Your task to perform on an android device: What's the news in Malaysia? Image 0: 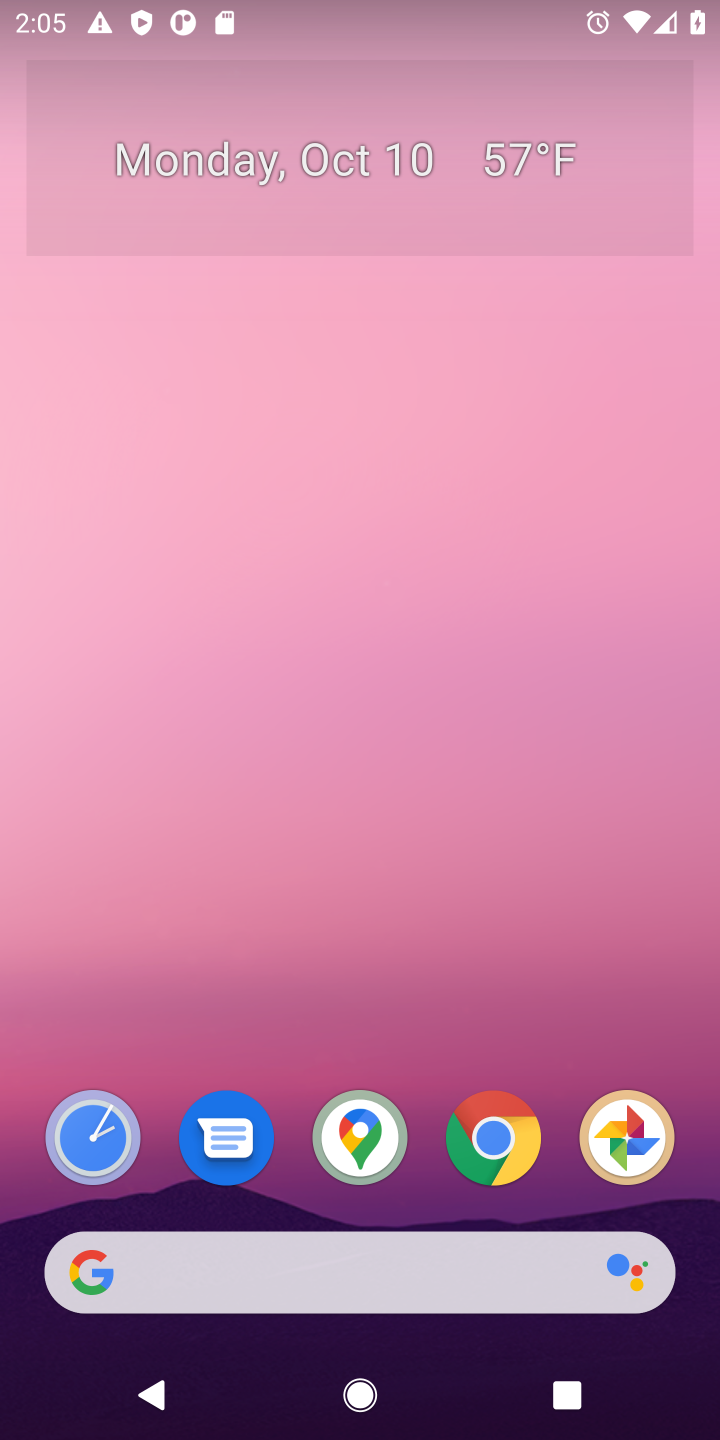
Step 0: click (355, 1255)
Your task to perform on an android device: What's the news in Malaysia? Image 1: 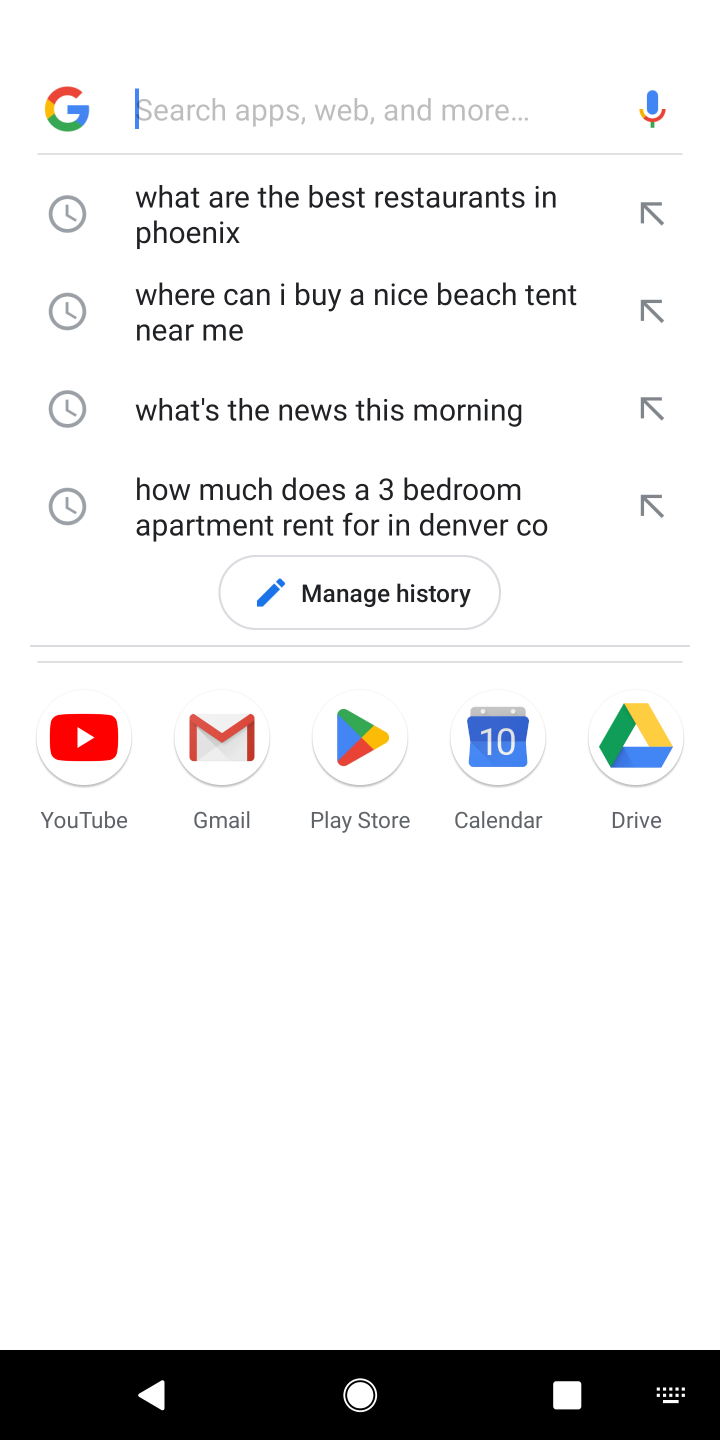
Step 1: type "news in malaysia?"
Your task to perform on an android device: What's the news in Malaysia? Image 2: 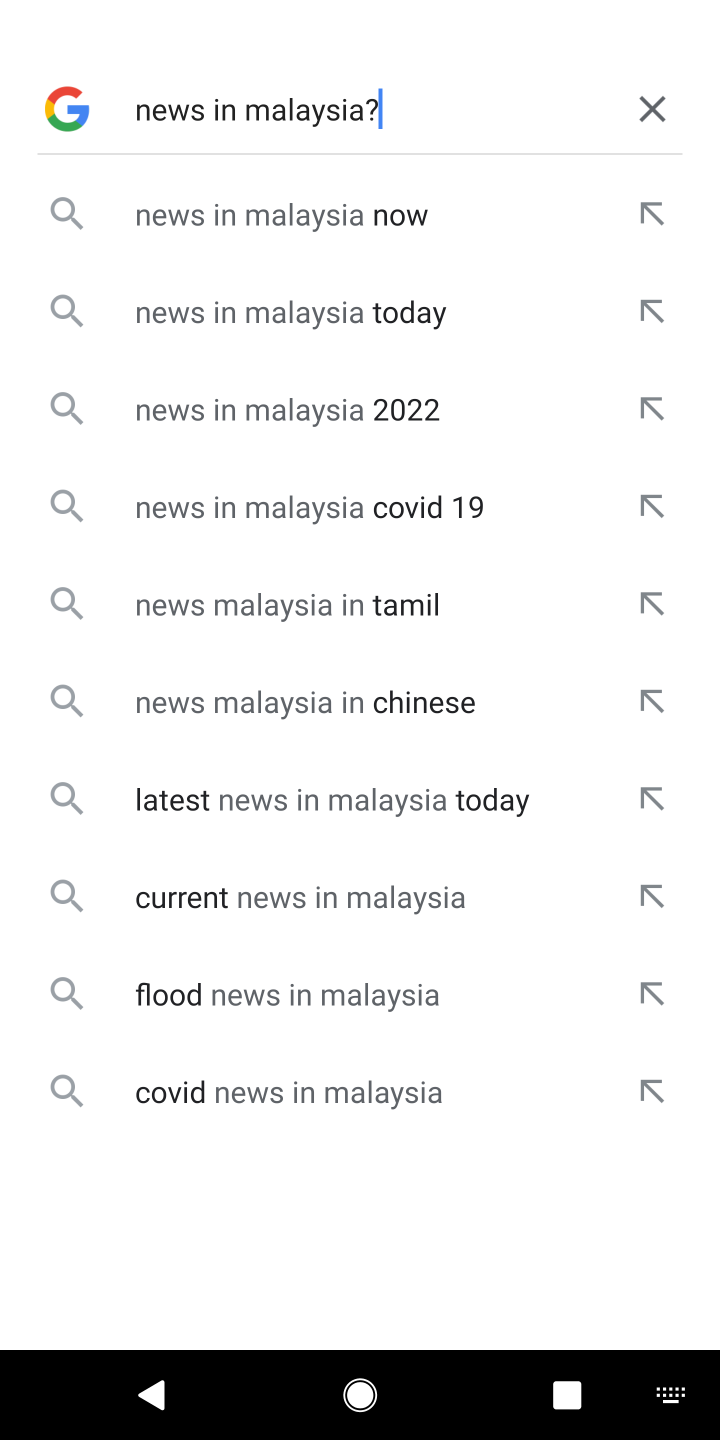
Step 2: click (268, 219)
Your task to perform on an android device: What's the news in Malaysia? Image 3: 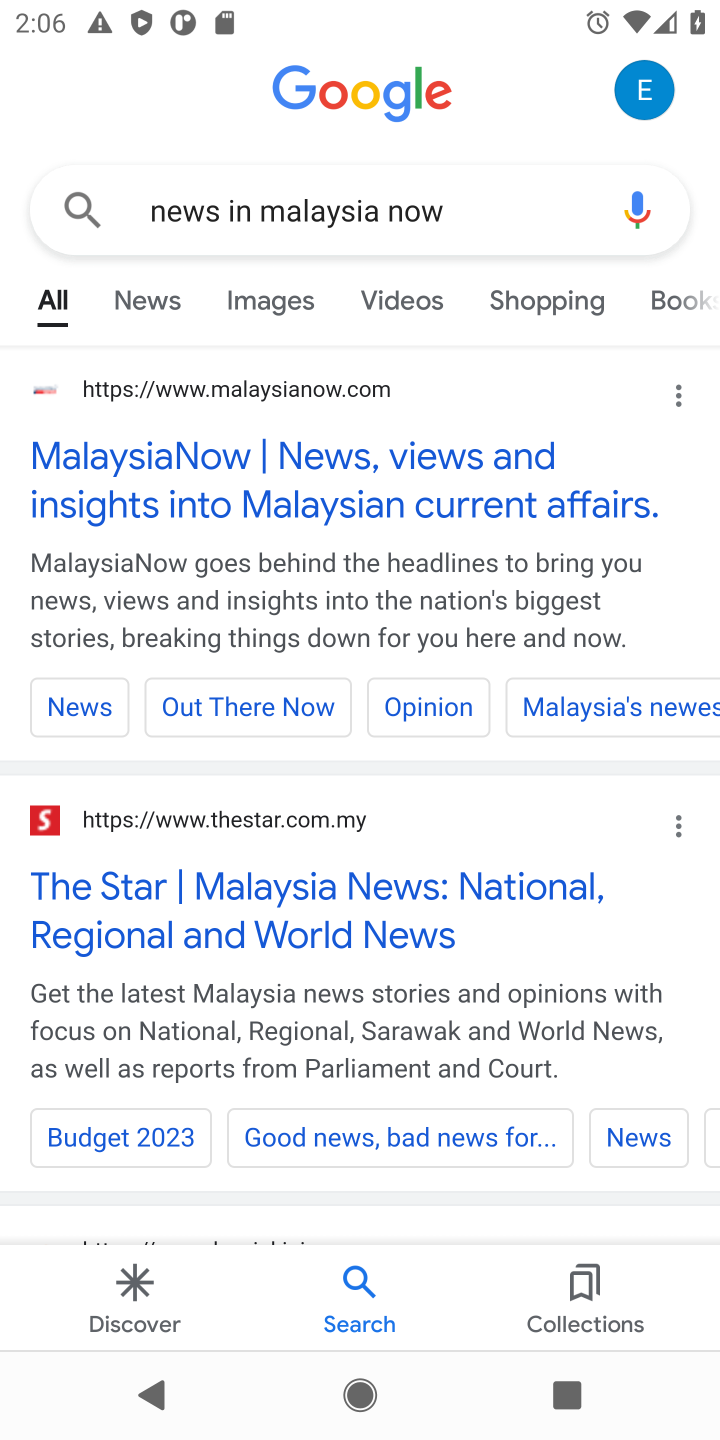
Step 3: click (210, 487)
Your task to perform on an android device: What's the news in Malaysia? Image 4: 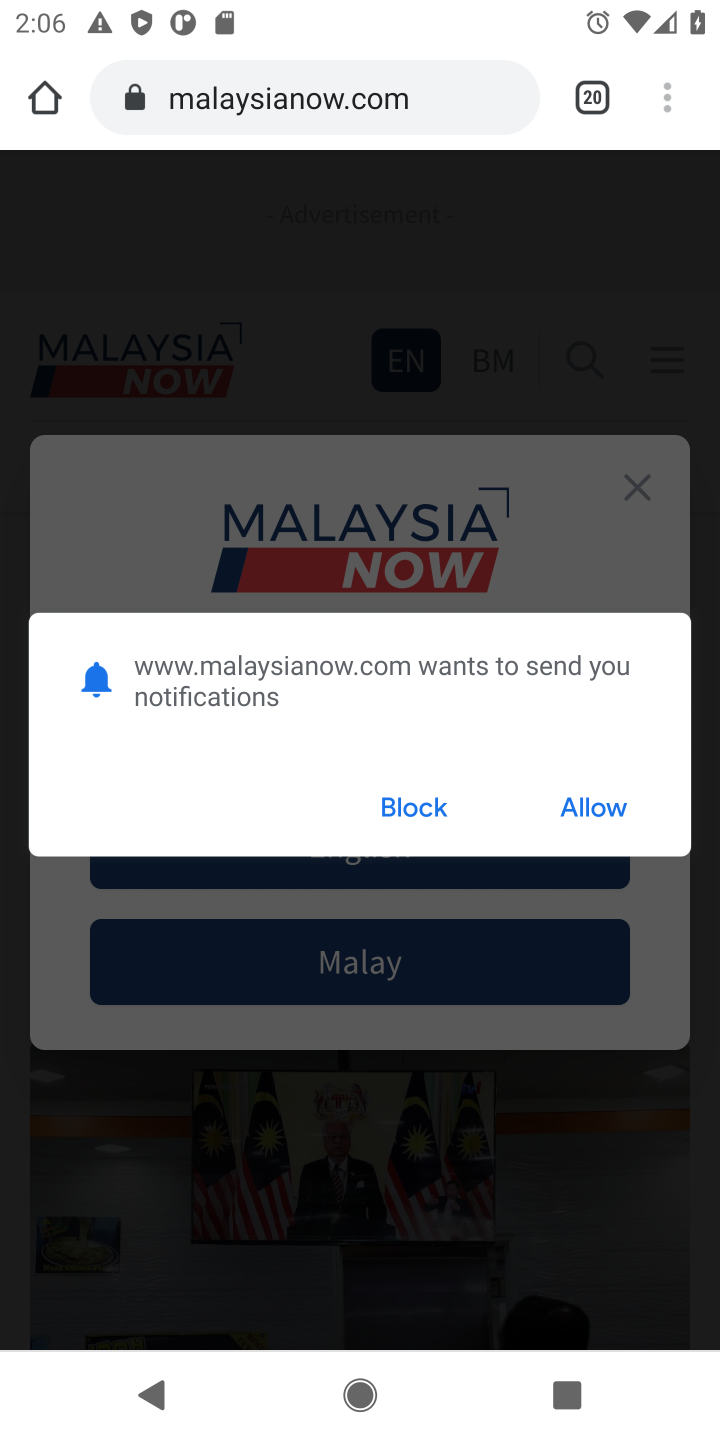
Step 4: click (593, 810)
Your task to perform on an android device: What's the news in Malaysia? Image 5: 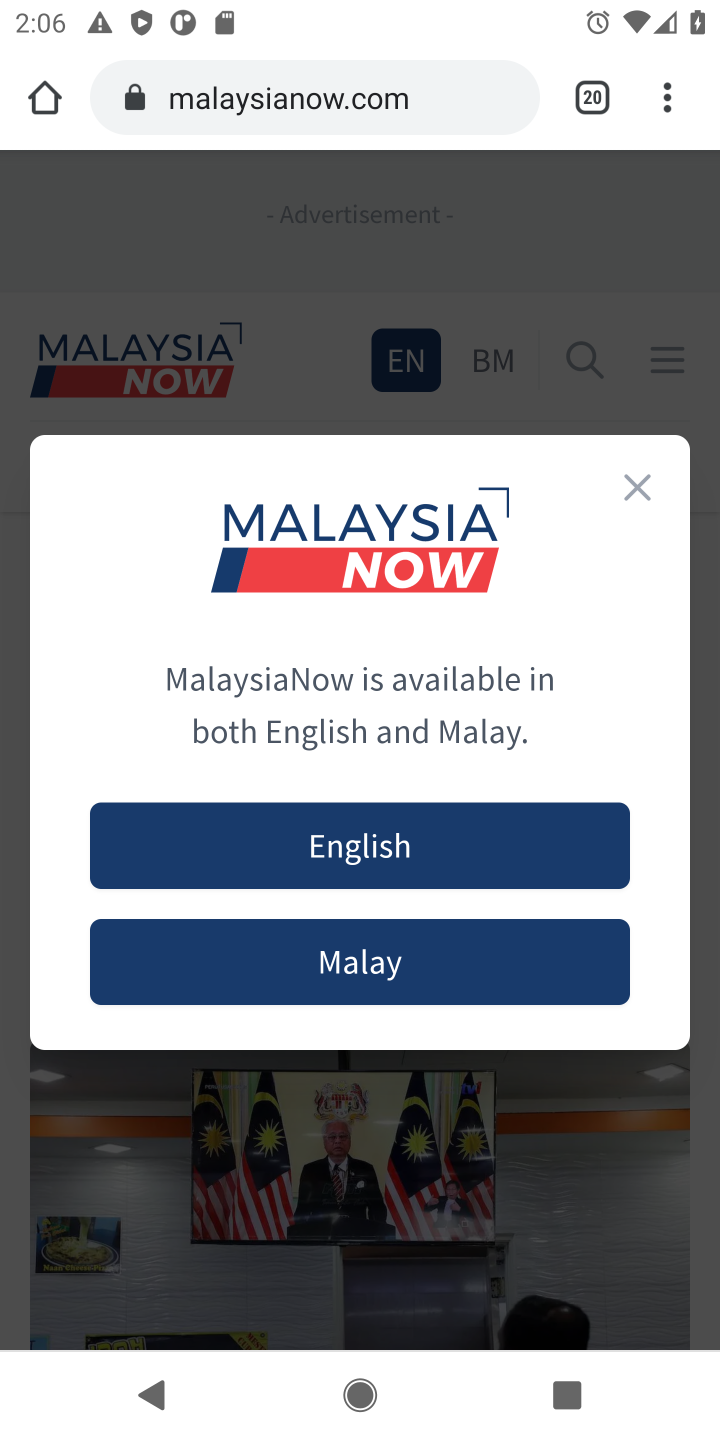
Step 5: click (389, 827)
Your task to perform on an android device: What's the news in Malaysia? Image 6: 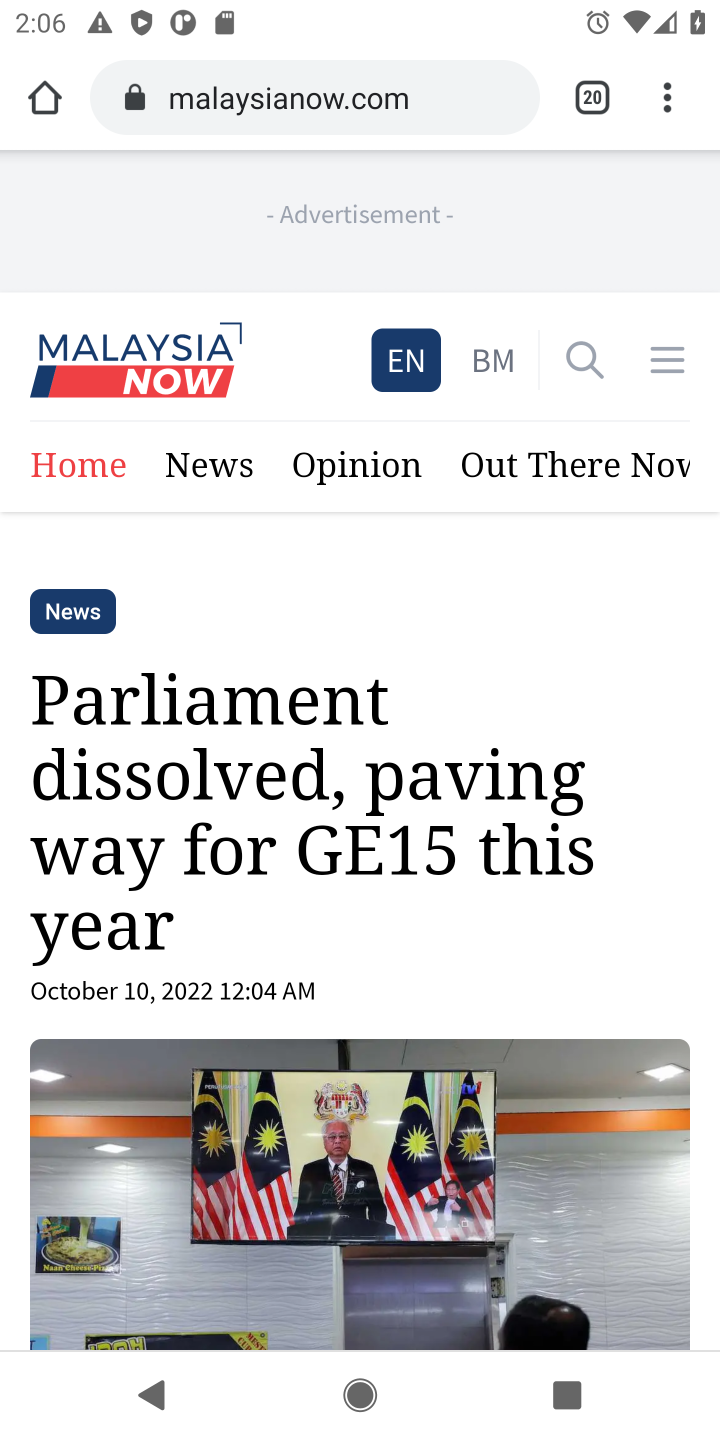
Step 6: task complete